Your task to perform on an android device: empty trash in google photos Image 0: 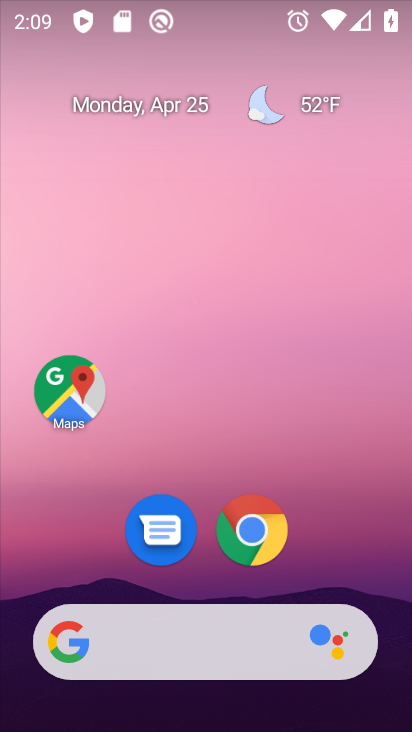
Step 0: drag from (347, 506) to (362, 155)
Your task to perform on an android device: empty trash in google photos Image 1: 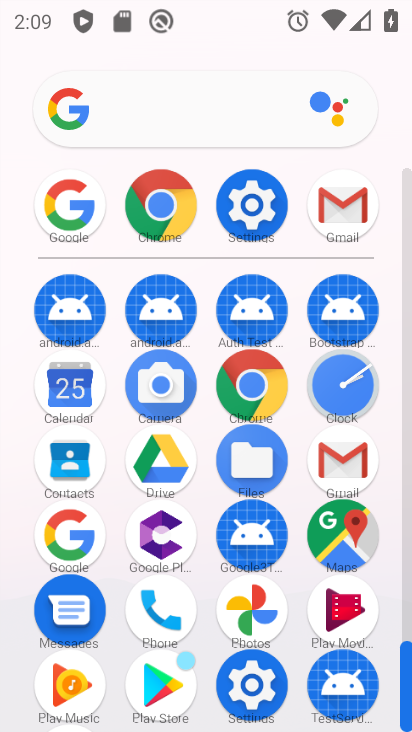
Step 1: click (243, 618)
Your task to perform on an android device: empty trash in google photos Image 2: 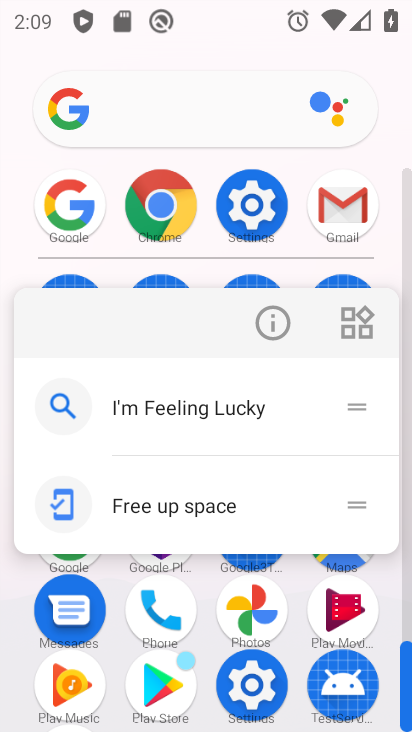
Step 2: click (235, 626)
Your task to perform on an android device: empty trash in google photos Image 3: 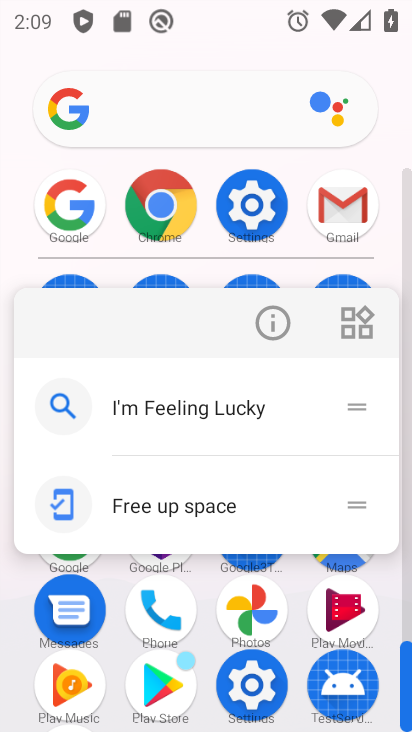
Step 3: click (254, 627)
Your task to perform on an android device: empty trash in google photos Image 4: 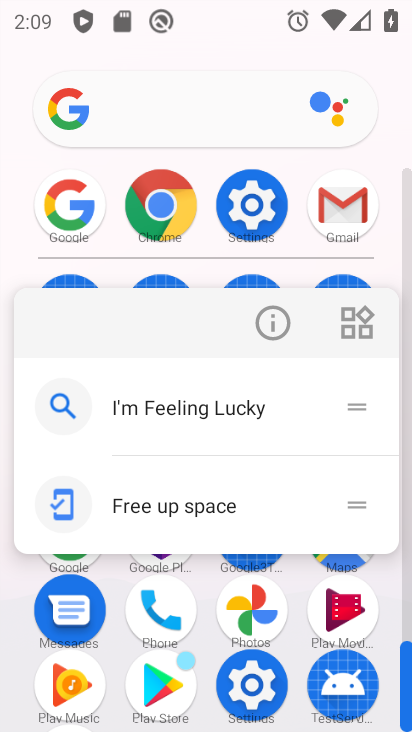
Step 4: click (251, 613)
Your task to perform on an android device: empty trash in google photos Image 5: 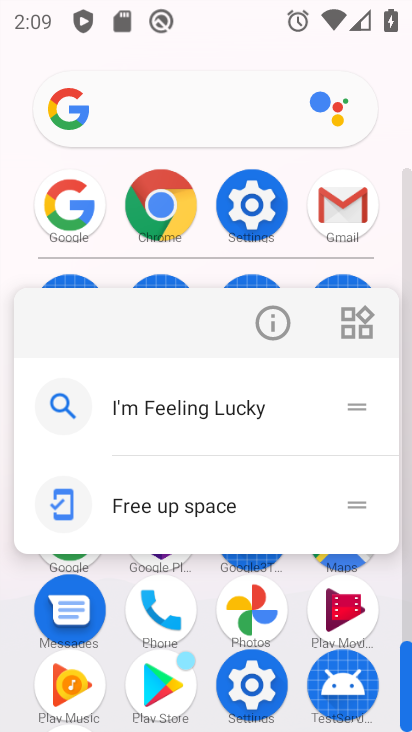
Step 5: click (253, 607)
Your task to perform on an android device: empty trash in google photos Image 6: 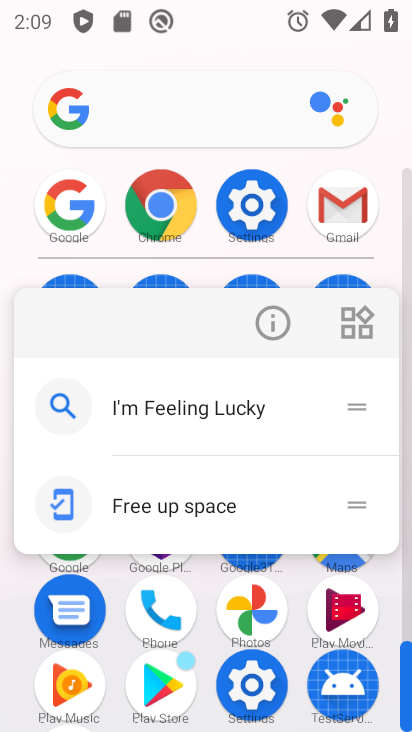
Step 6: click (238, 596)
Your task to perform on an android device: empty trash in google photos Image 7: 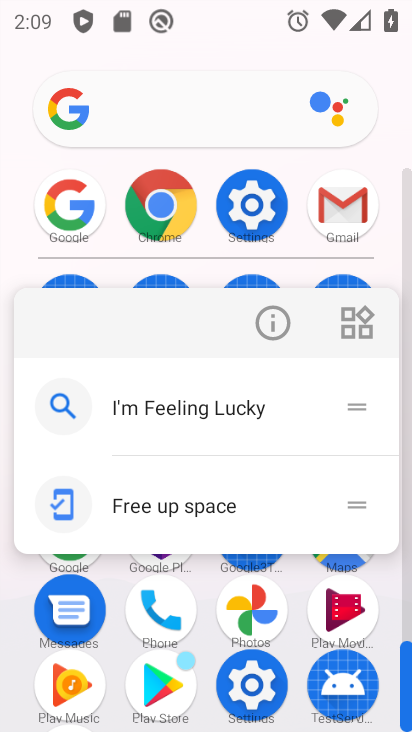
Step 7: click (278, 602)
Your task to perform on an android device: empty trash in google photos Image 8: 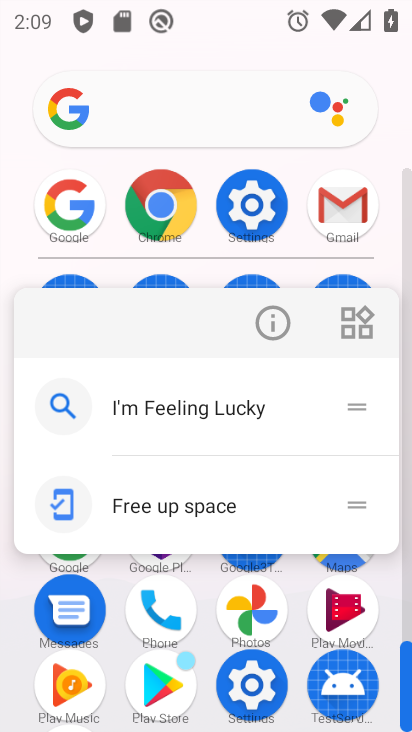
Step 8: click (273, 625)
Your task to perform on an android device: empty trash in google photos Image 9: 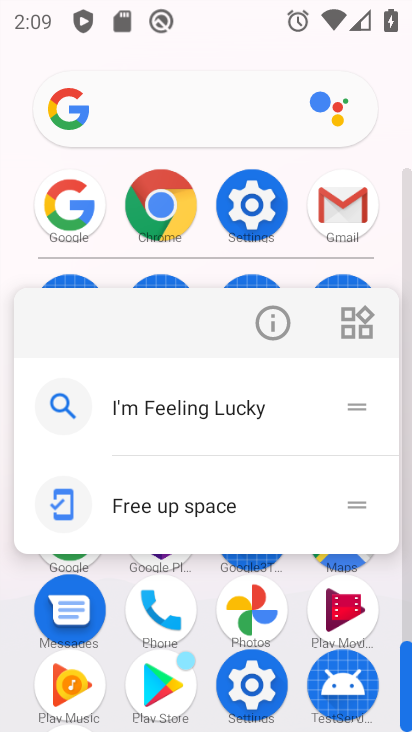
Step 9: click (272, 623)
Your task to perform on an android device: empty trash in google photos Image 10: 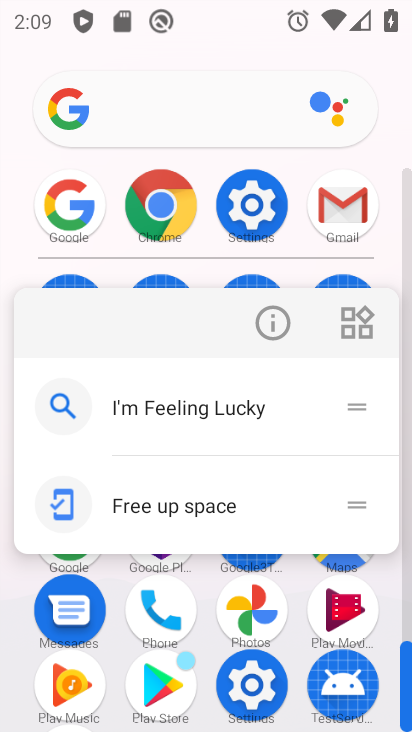
Step 10: task complete